Your task to perform on an android device: check data usage Image 0: 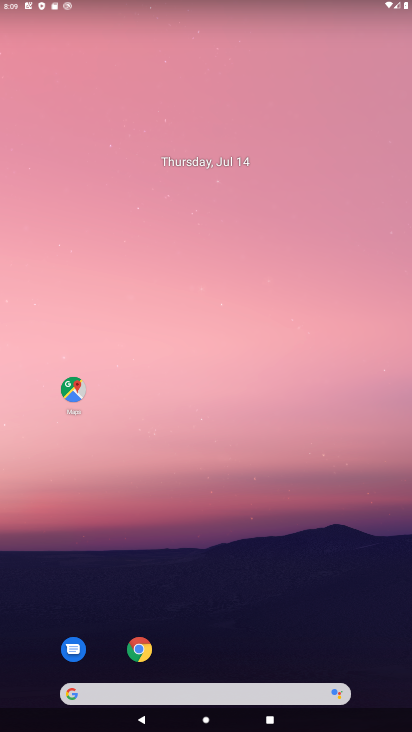
Step 0: drag from (150, 675) to (320, 13)
Your task to perform on an android device: check data usage Image 1: 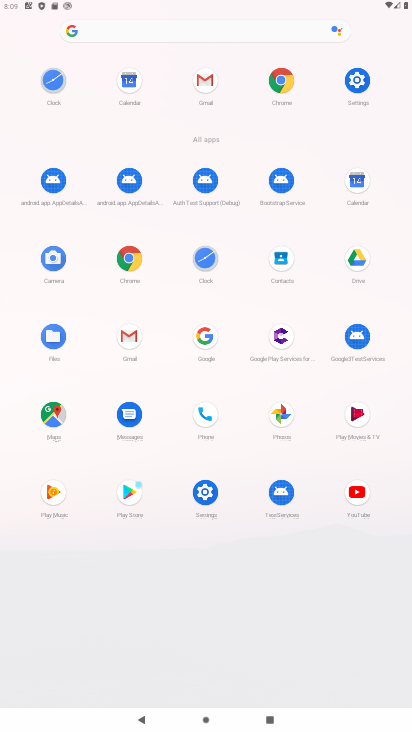
Step 1: click (356, 86)
Your task to perform on an android device: check data usage Image 2: 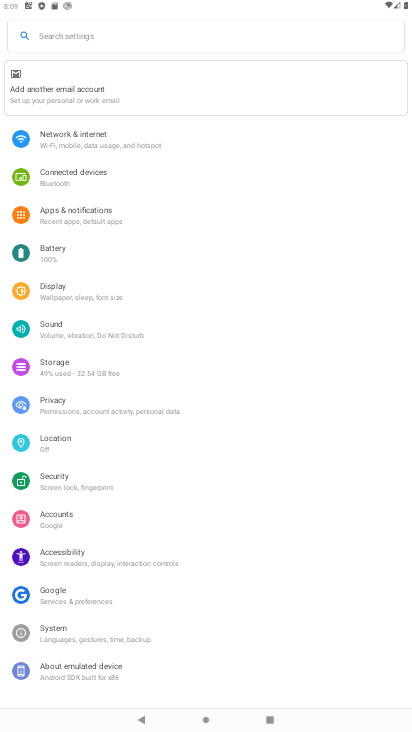
Step 2: click (142, 142)
Your task to perform on an android device: check data usage Image 3: 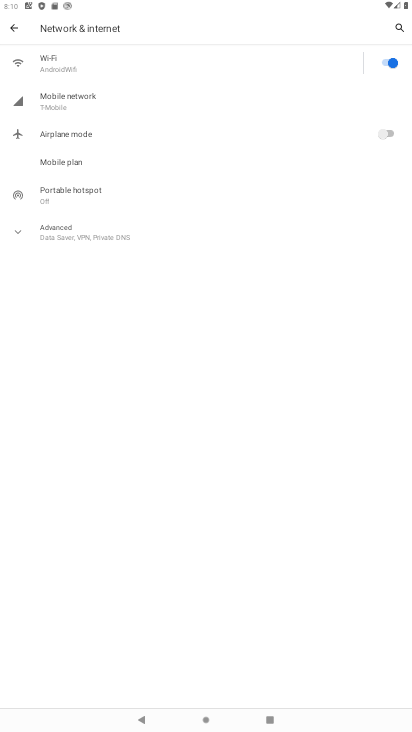
Step 3: click (98, 92)
Your task to perform on an android device: check data usage Image 4: 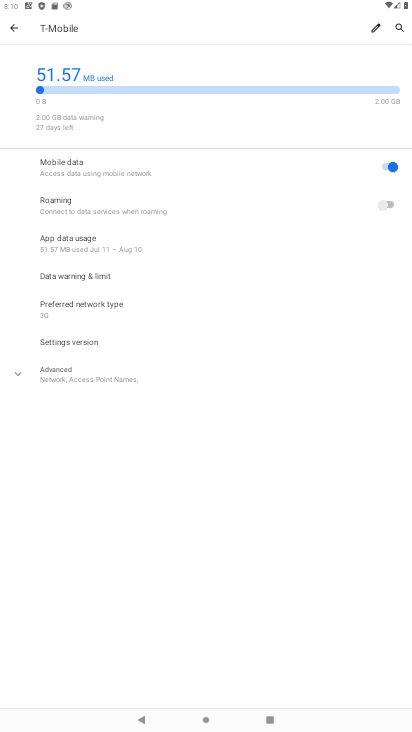
Step 4: task complete